Your task to perform on an android device: open app "Google Calendar" Image 0: 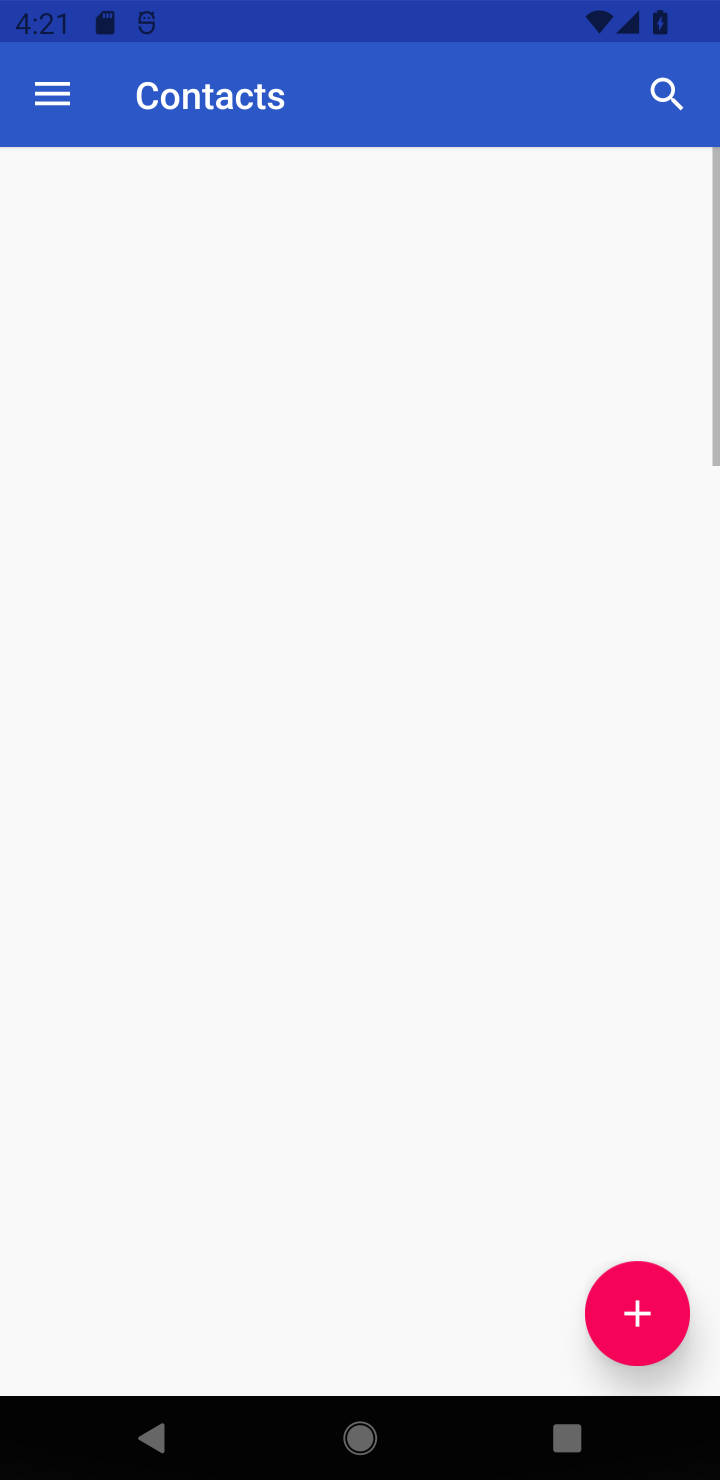
Step 0: press home button
Your task to perform on an android device: open app "Google Calendar" Image 1: 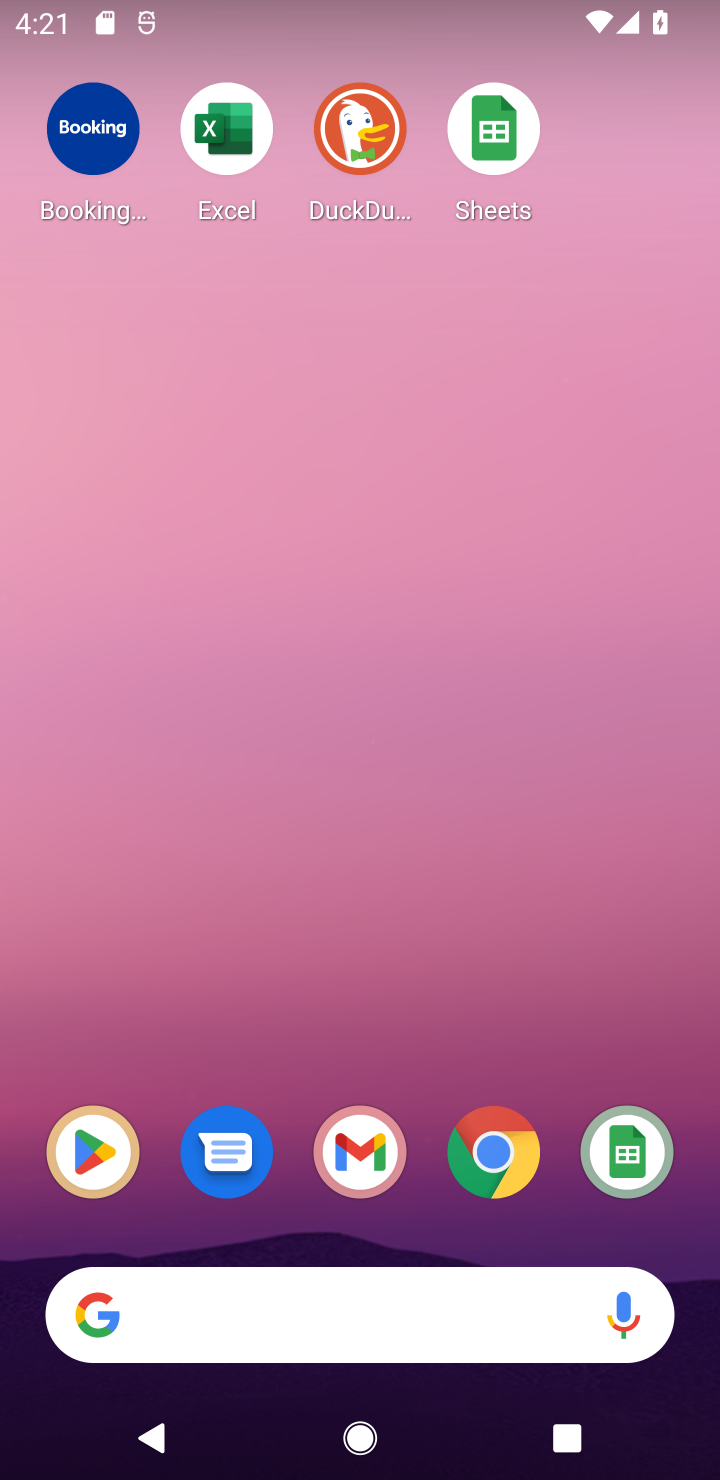
Step 1: drag from (344, 1227) to (361, 65)
Your task to perform on an android device: open app "Google Calendar" Image 2: 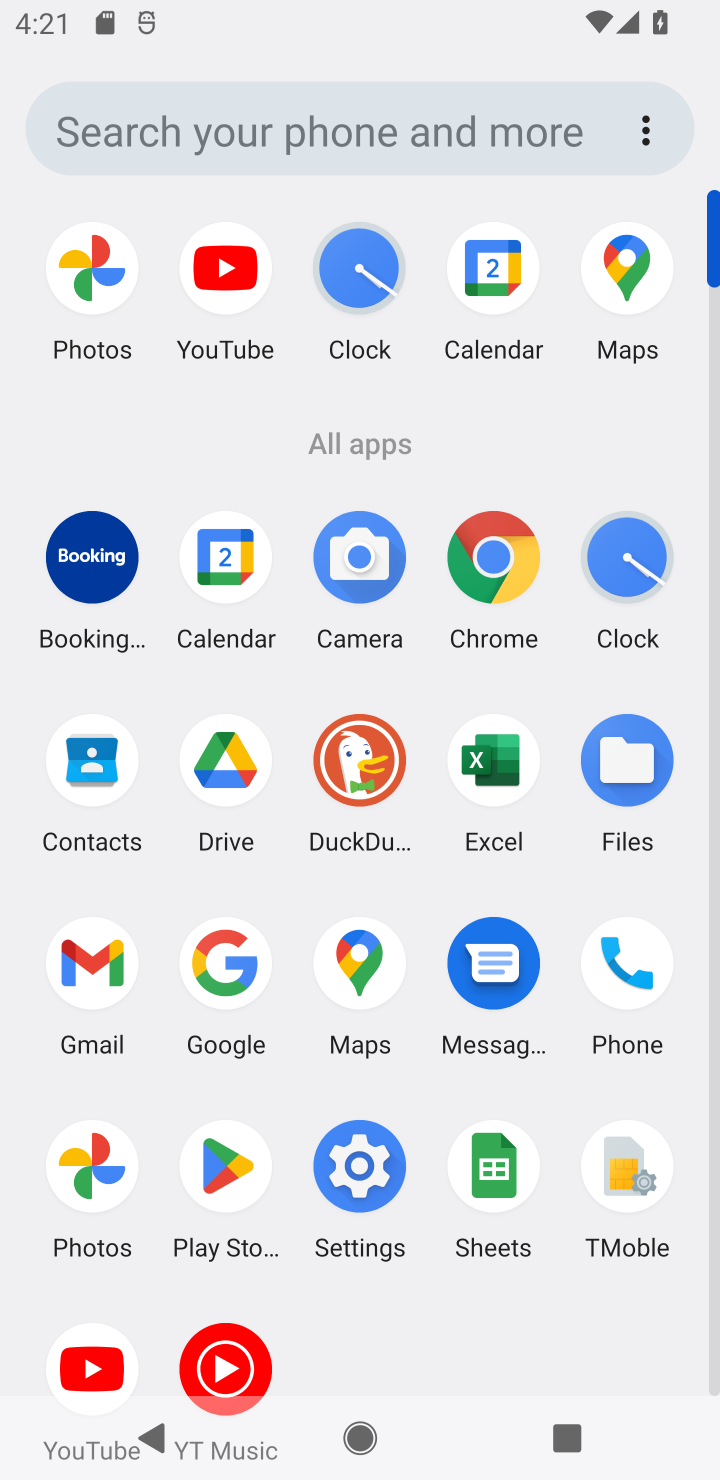
Step 2: click (214, 570)
Your task to perform on an android device: open app "Google Calendar" Image 3: 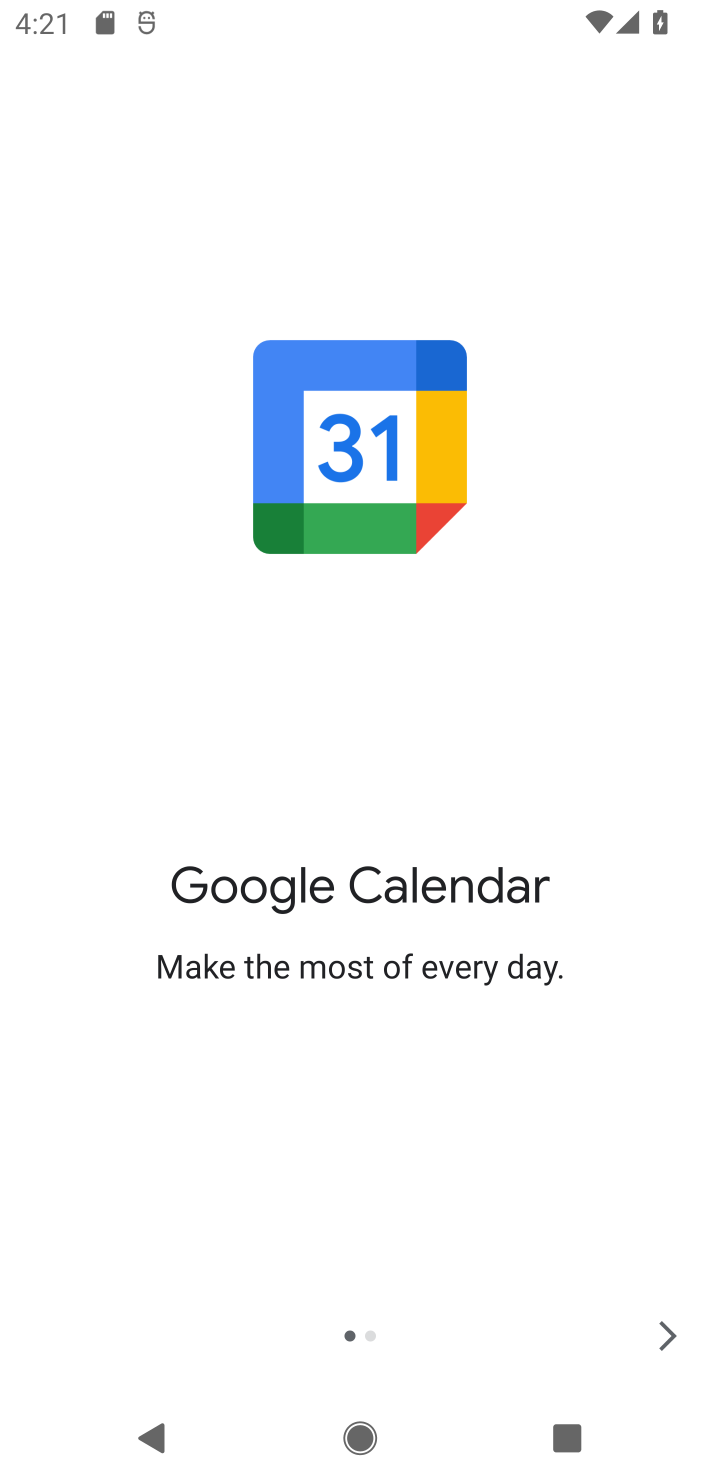
Step 3: click (654, 1328)
Your task to perform on an android device: open app "Google Calendar" Image 4: 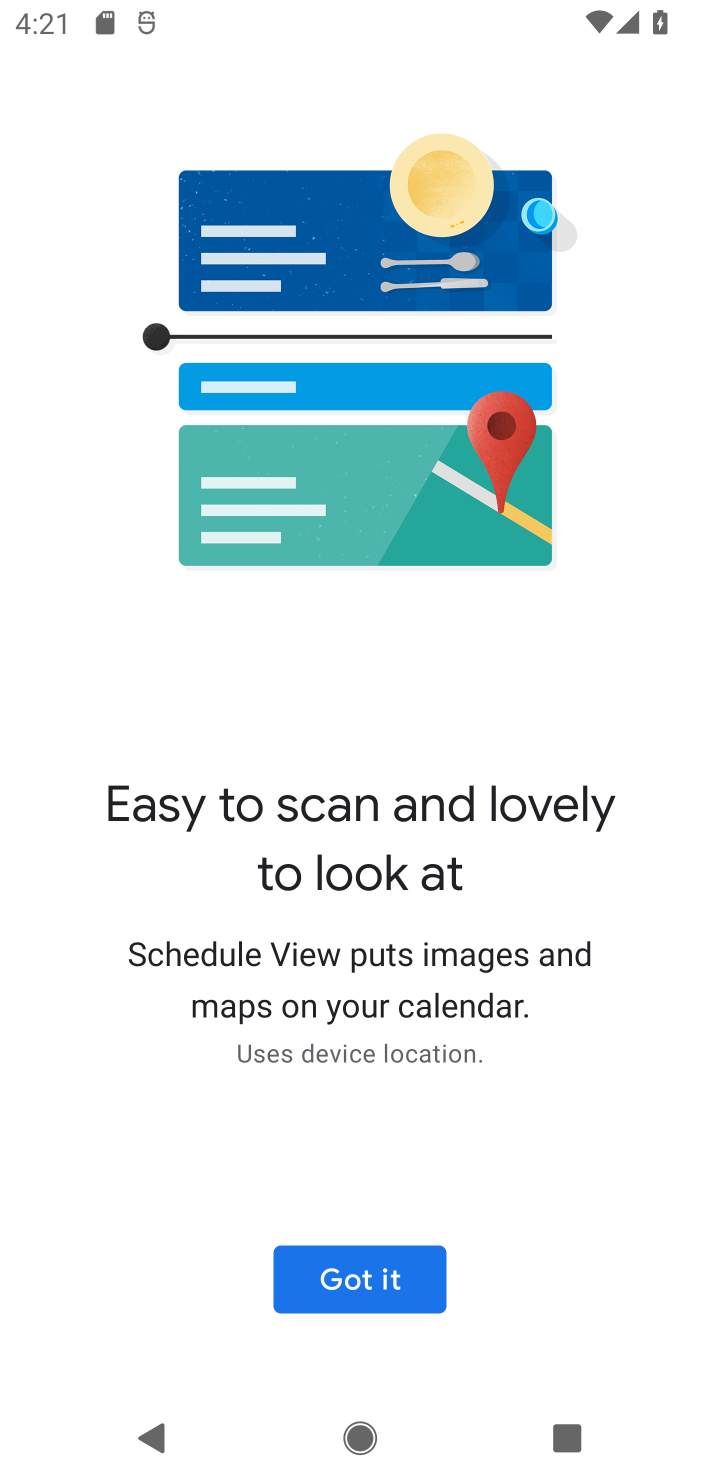
Step 4: click (417, 1274)
Your task to perform on an android device: open app "Google Calendar" Image 5: 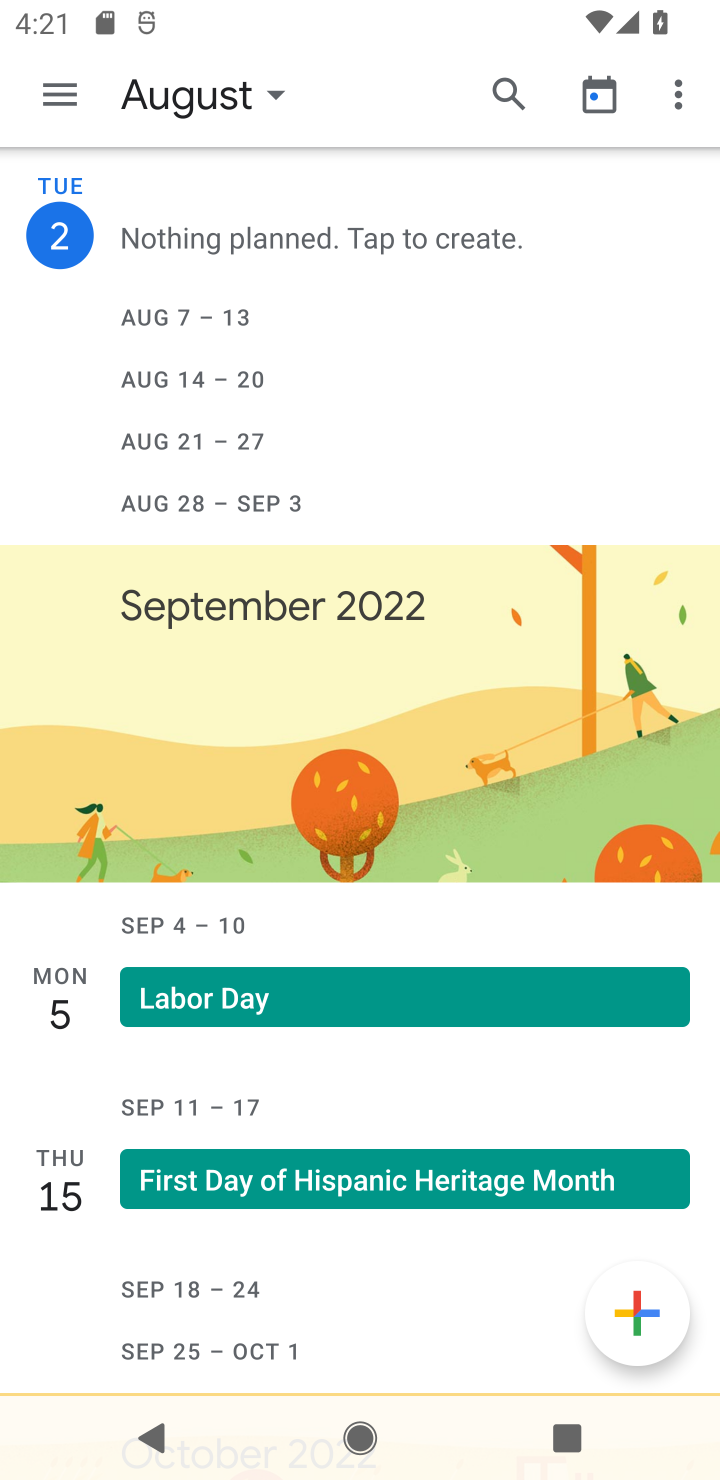
Step 5: task complete